Your task to perform on an android device: Open the calendar app, open the side menu, and click the "Day" option Image 0: 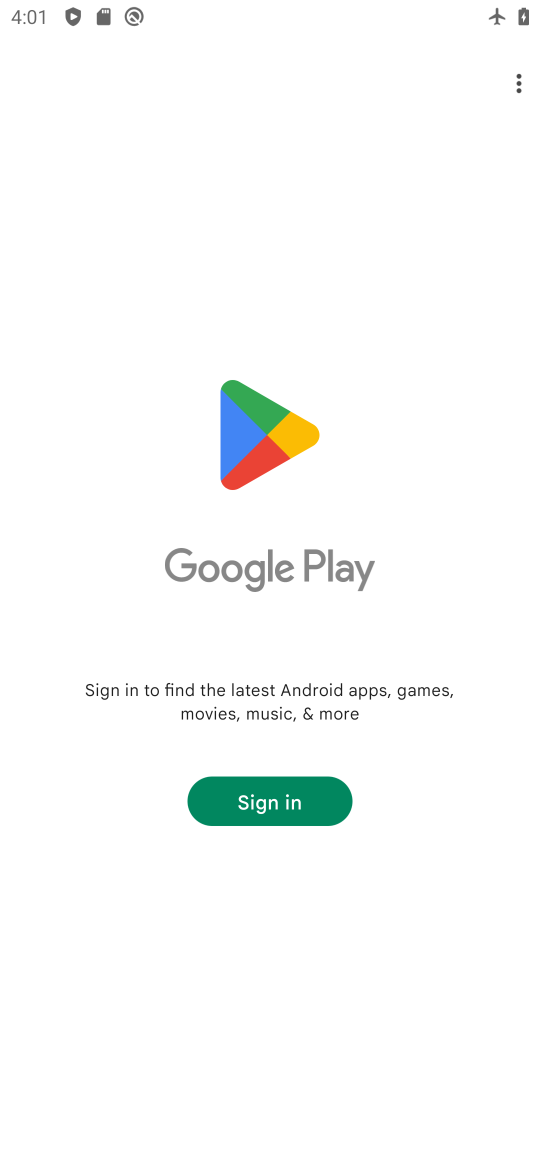
Step 0: press home button
Your task to perform on an android device: Open the calendar app, open the side menu, and click the "Day" option Image 1: 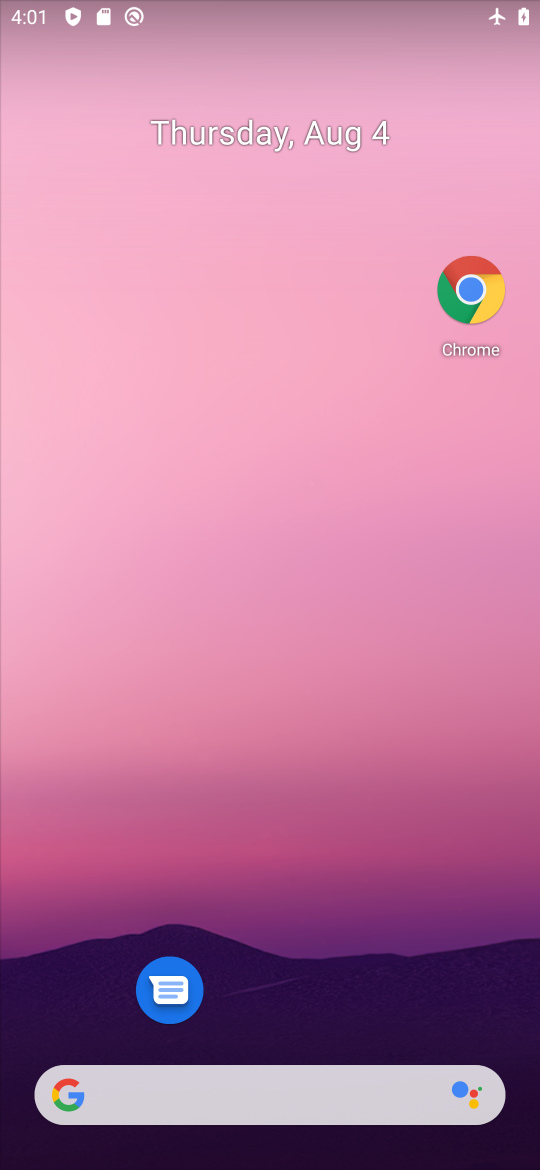
Step 1: drag from (395, 1047) to (242, 35)
Your task to perform on an android device: Open the calendar app, open the side menu, and click the "Day" option Image 2: 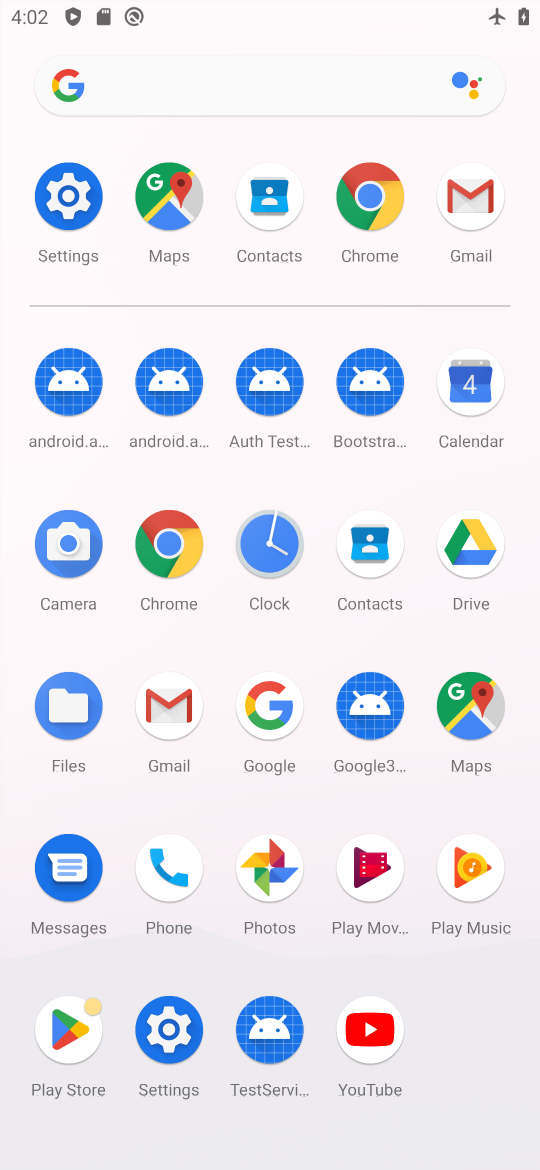
Step 2: click (492, 356)
Your task to perform on an android device: Open the calendar app, open the side menu, and click the "Day" option Image 3: 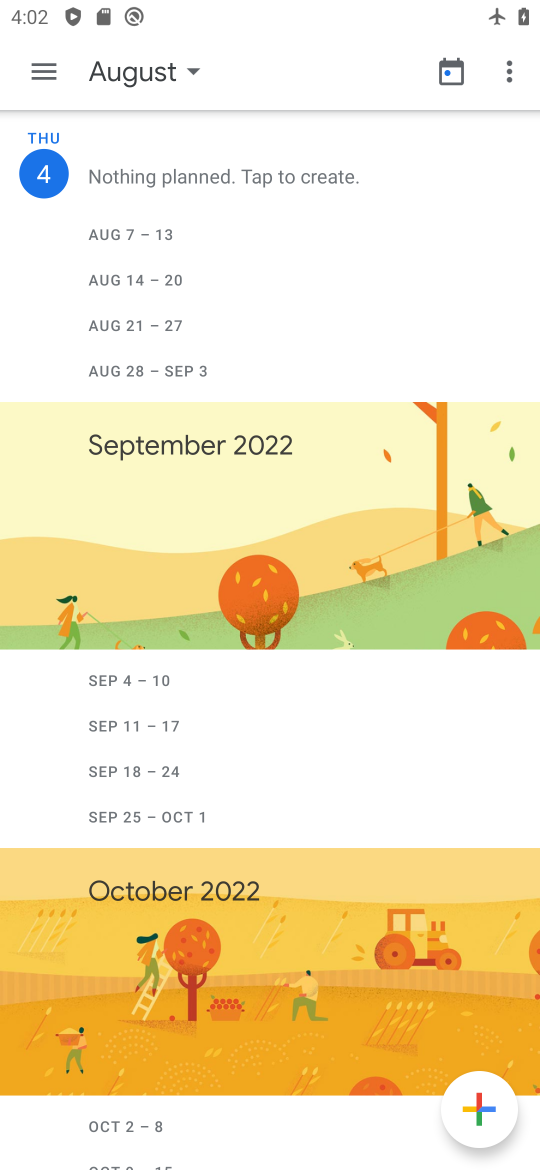
Step 3: click (50, 85)
Your task to perform on an android device: Open the calendar app, open the side menu, and click the "Day" option Image 4: 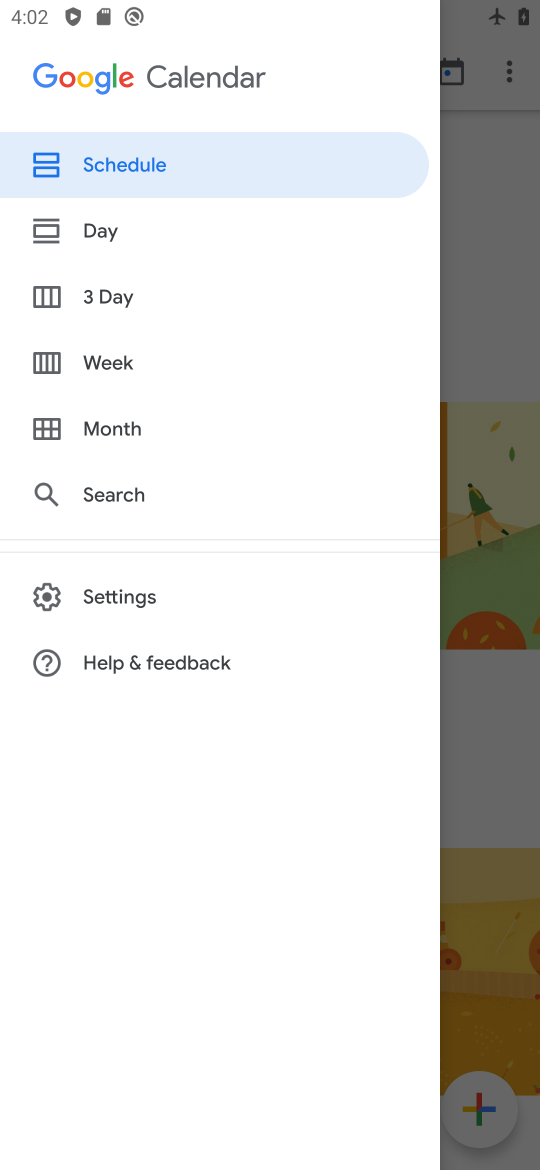
Step 4: click (68, 253)
Your task to perform on an android device: Open the calendar app, open the side menu, and click the "Day" option Image 5: 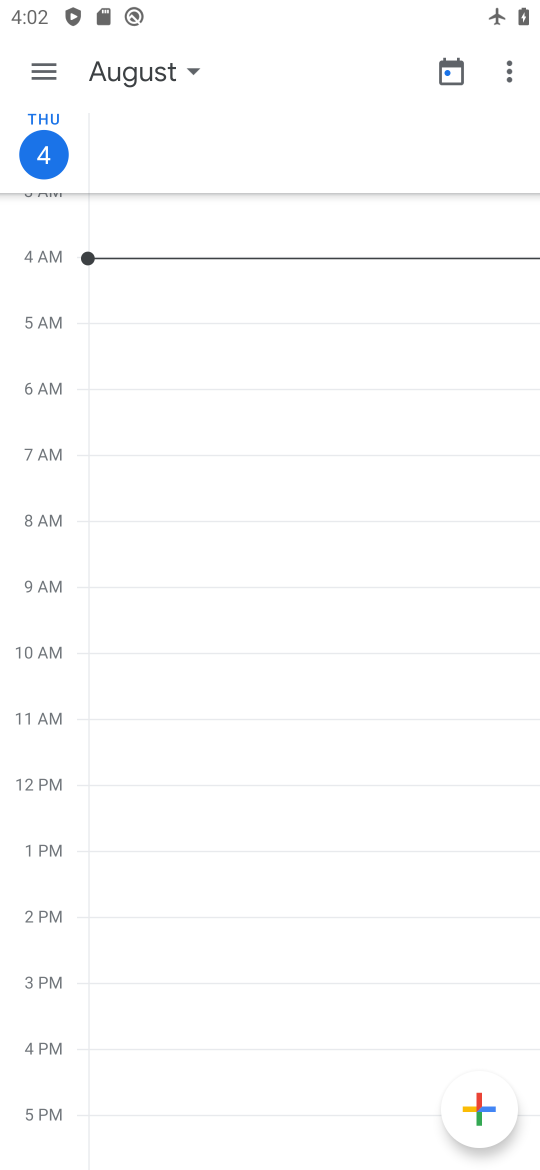
Step 5: task complete